Your task to perform on an android device: Go to Yahoo.com Image 0: 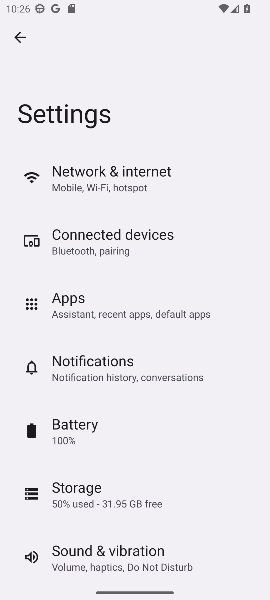
Step 0: press home button
Your task to perform on an android device: Go to Yahoo.com Image 1: 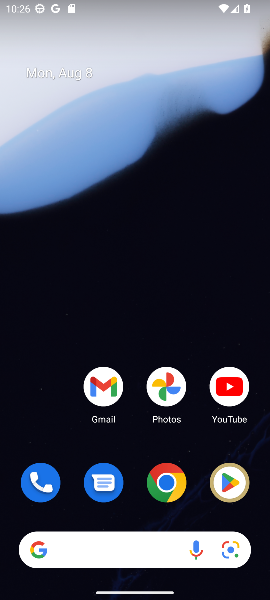
Step 1: click (167, 479)
Your task to perform on an android device: Go to Yahoo.com Image 2: 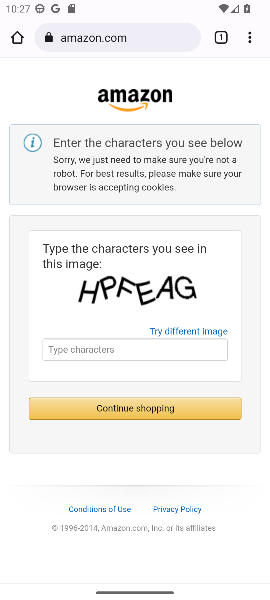
Step 2: click (153, 42)
Your task to perform on an android device: Go to Yahoo.com Image 3: 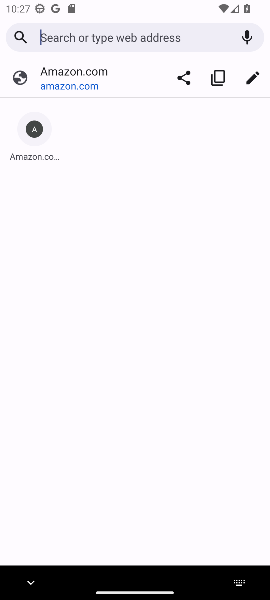
Step 3: type "yahoo.com"
Your task to perform on an android device: Go to Yahoo.com Image 4: 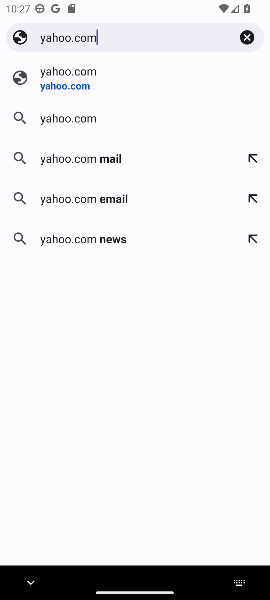
Step 4: click (66, 79)
Your task to perform on an android device: Go to Yahoo.com Image 5: 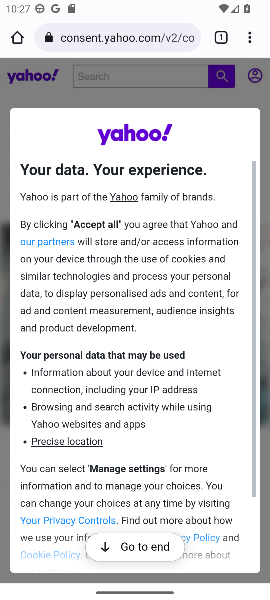
Step 5: task complete